Your task to perform on an android device: turn on data saver in the chrome app Image 0: 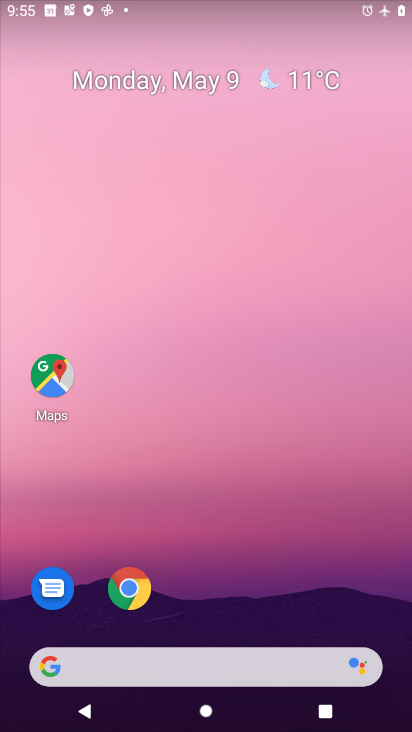
Step 0: drag from (343, 618) to (207, 31)
Your task to perform on an android device: turn on data saver in the chrome app Image 1: 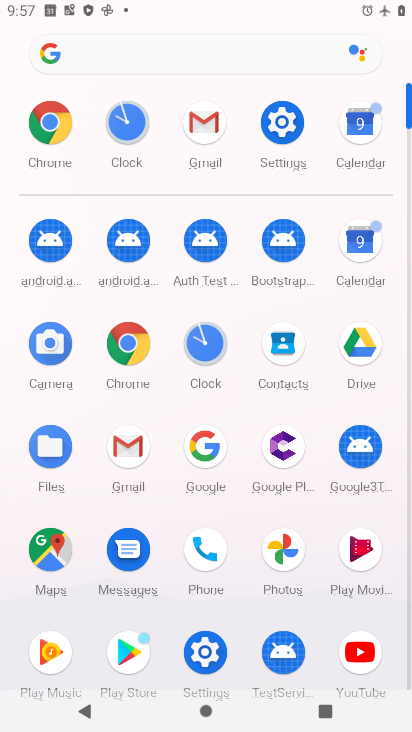
Step 1: click (123, 355)
Your task to perform on an android device: turn on data saver in the chrome app Image 2: 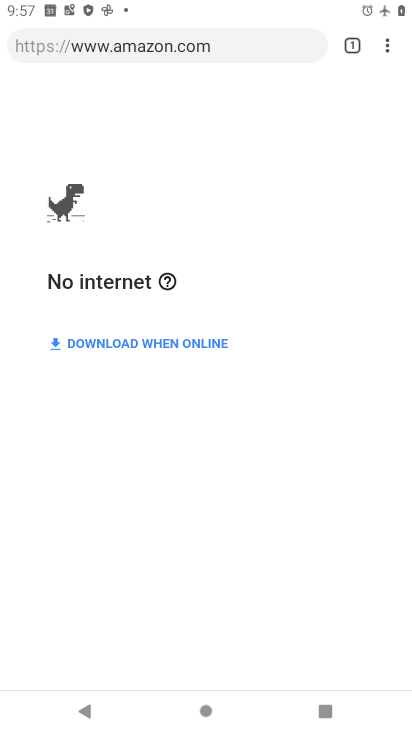
Step 2: click (385, 43)
Your task to perform on an android device: turn on data saver in the chrome app Image 3: 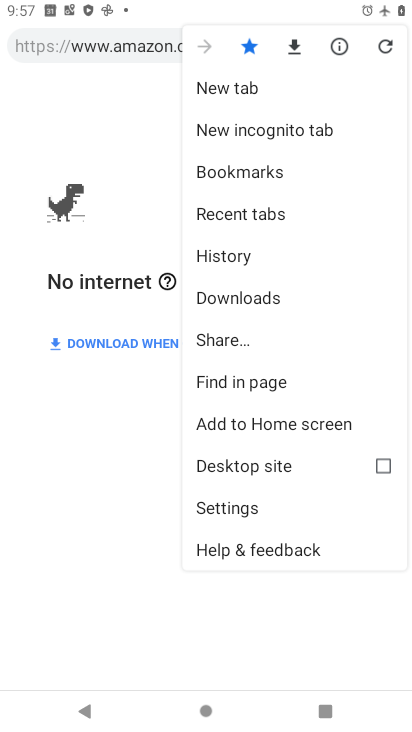
Step 3: click (254, 511)
Your task to perform on an android device: turn on data saver in the chrome app Image 4: 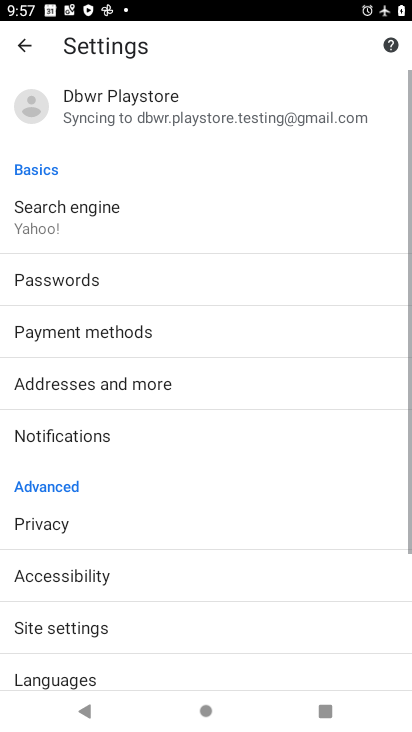
Step 4: drag from (95, 621) to (124, 178)
Your task to perform on an android device: turn on data saver in the chrome app Image 5: 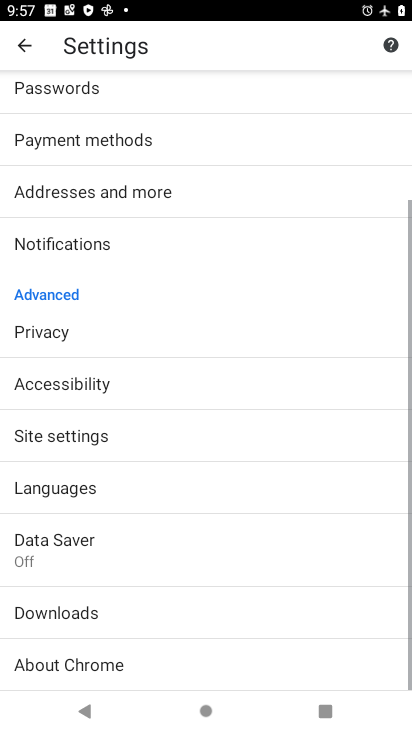
Step 5: click (54, 550)
Your task to perform on an android device: turn on data saver in the chrome app Image 6: 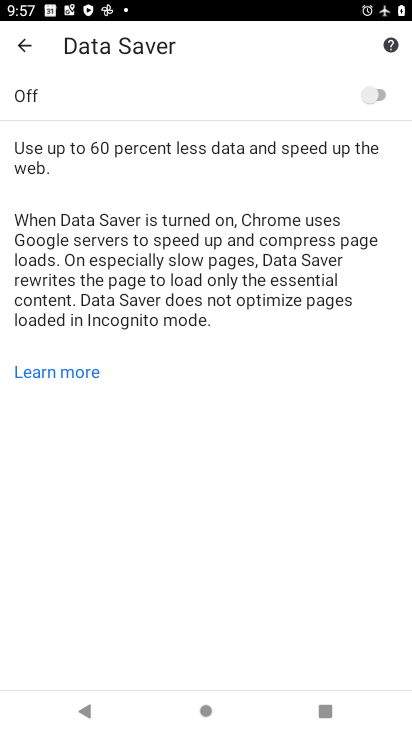
Step 6: click (338, 100)
Your task to perform on an android device: turn on data saver in the chrome app Image 7: 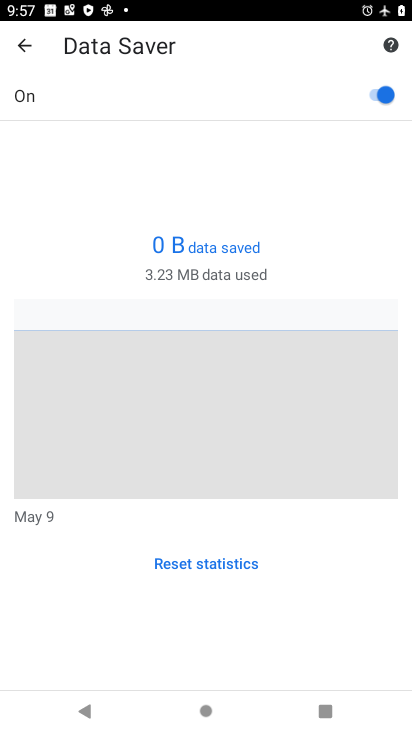
Step 7: task complete